Your task to perform on an android device: turn off wifi Image 0: 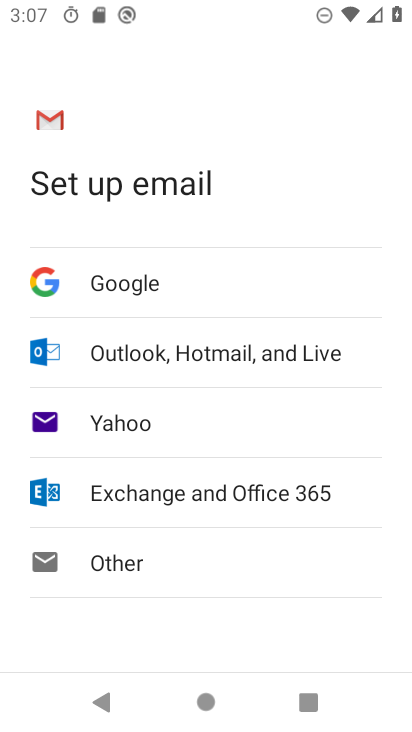
Step 0: press home button
Your task to perform on an android device: turn off wifi Image 1: 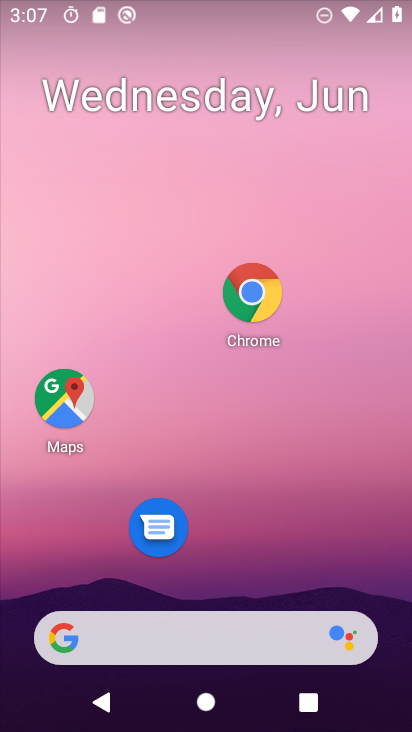
Step 1: drag from (255, 340) to (271, 214)
Your task to perform on an android device: turn off wifi Image 2: 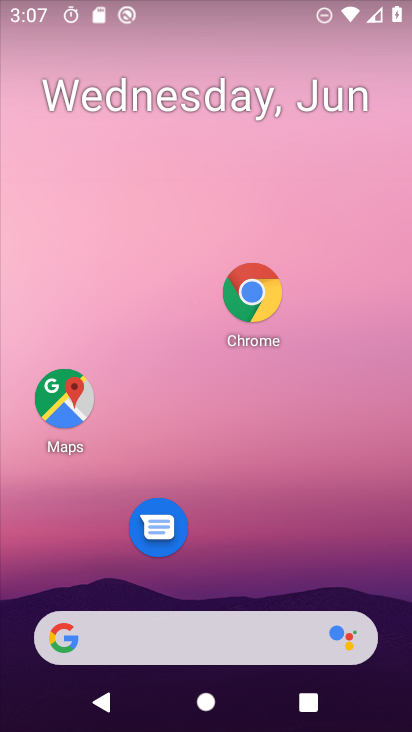
Step 2: drag from (238, 521) to (286, 176)
Your task to perform on an android device: turn off wifi Image 3: 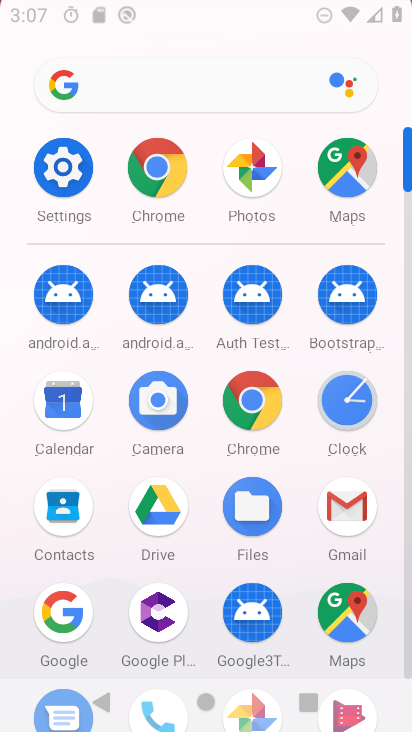
Step 3: drag from (303, 513) to (309, 332)
Your task to perform on an android device: turn off wifi Image 4: 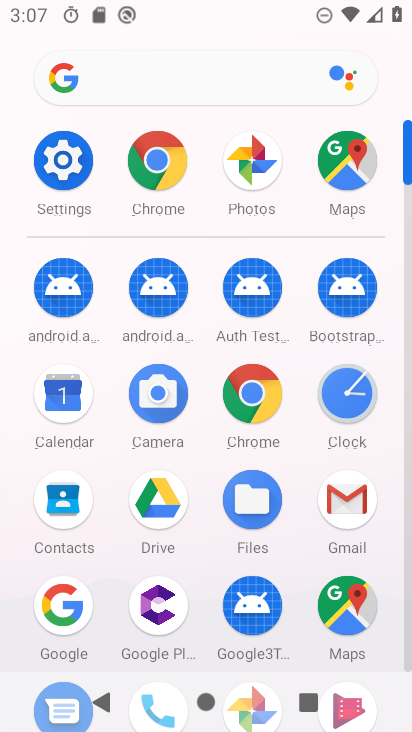
Step 4: click (78, 197)
Your task to perform on an android device: turn off wifi Image 5: 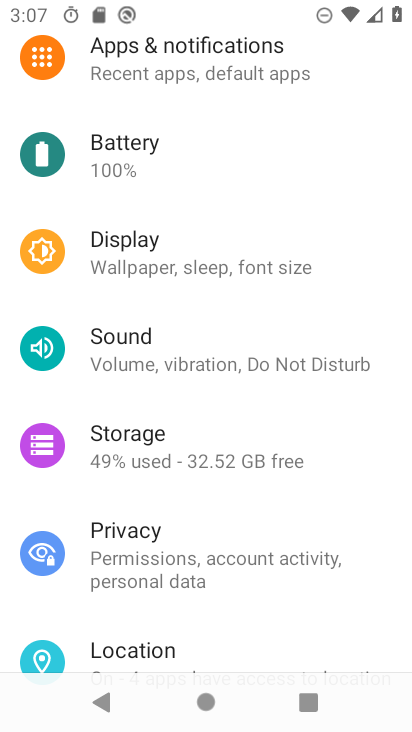
Step 5: drag from (226, 375) to (240, 638)
Your task to perform on an android device: turn off wifi Image 6: 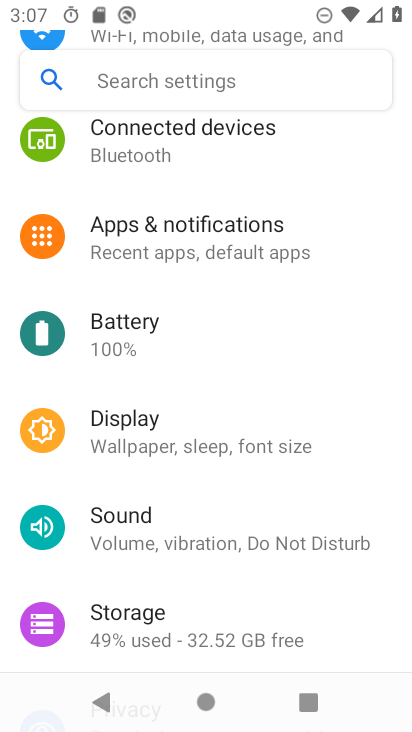
Step 6: drag from (165, 480) to (165, 597)
Your task to perform on an android device: turn off wifi Image 7: 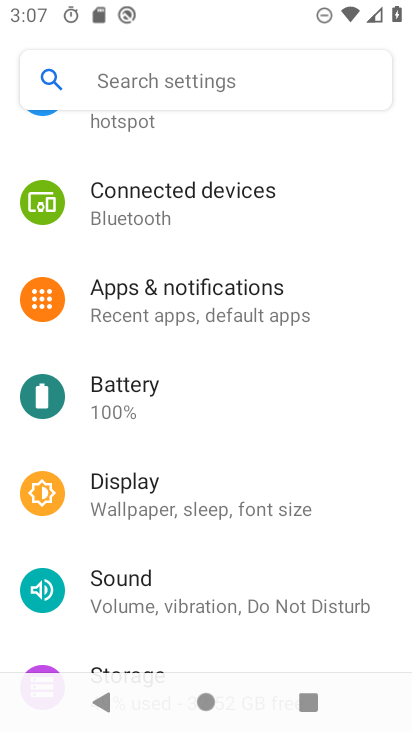
Step 7: drag from (214, 319) to (210, 606)
Your task to perform on an android device: turn off wifi Image 8: 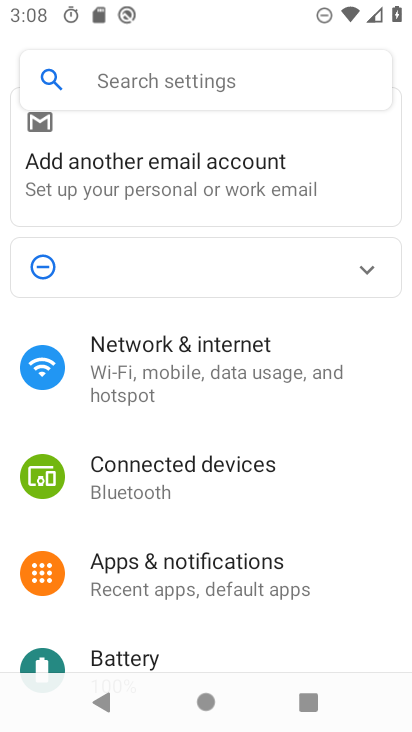
Step 8: click (223, 351)
Your task to perform on an android device: turn off wifi Image 9: 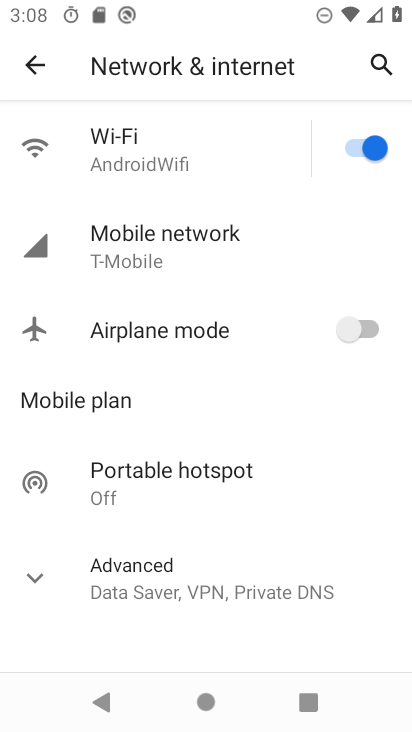
Step 9: click (365, 145)
Your task to perform on an android device: turn off wifi Image 10: 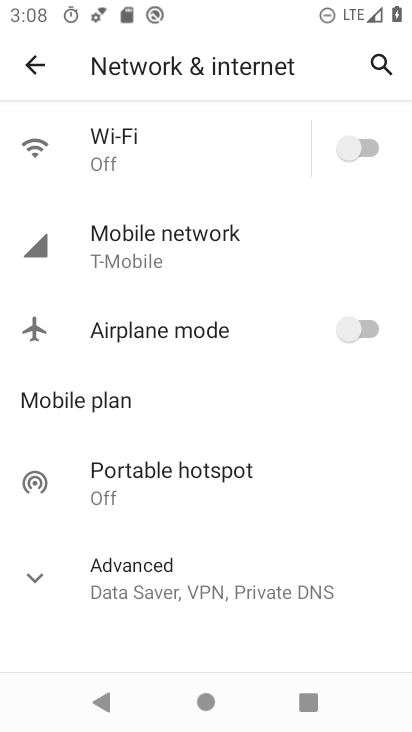
Step 10: task complete